Your task to perform on an android device: Open the phone app and click the voicemail tab. Image 0: 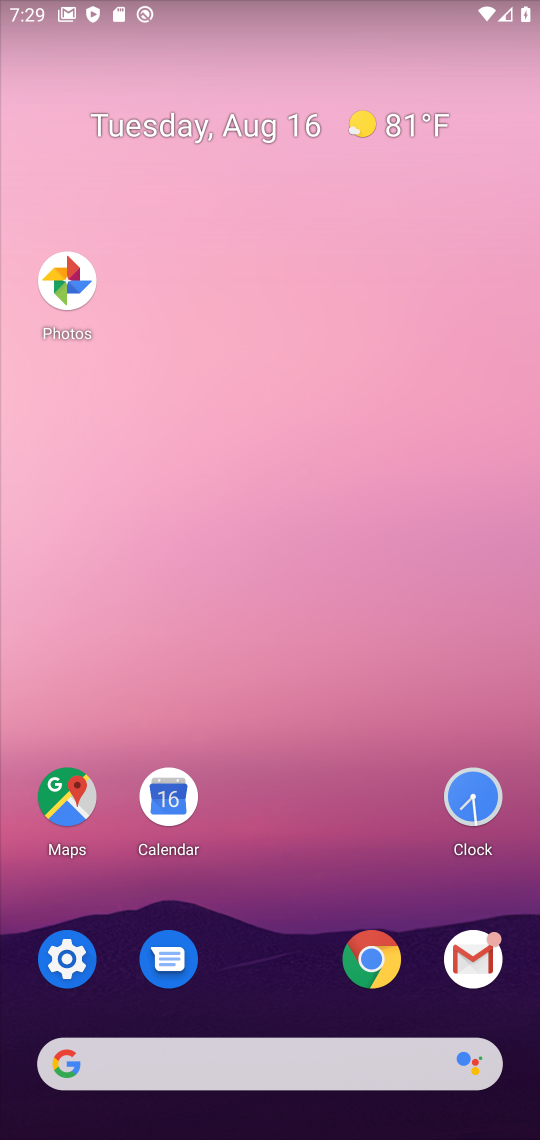
Step 0: press home button
Your task to perform on an android device: Open the phone app and click the voicemail tab. Image 1: 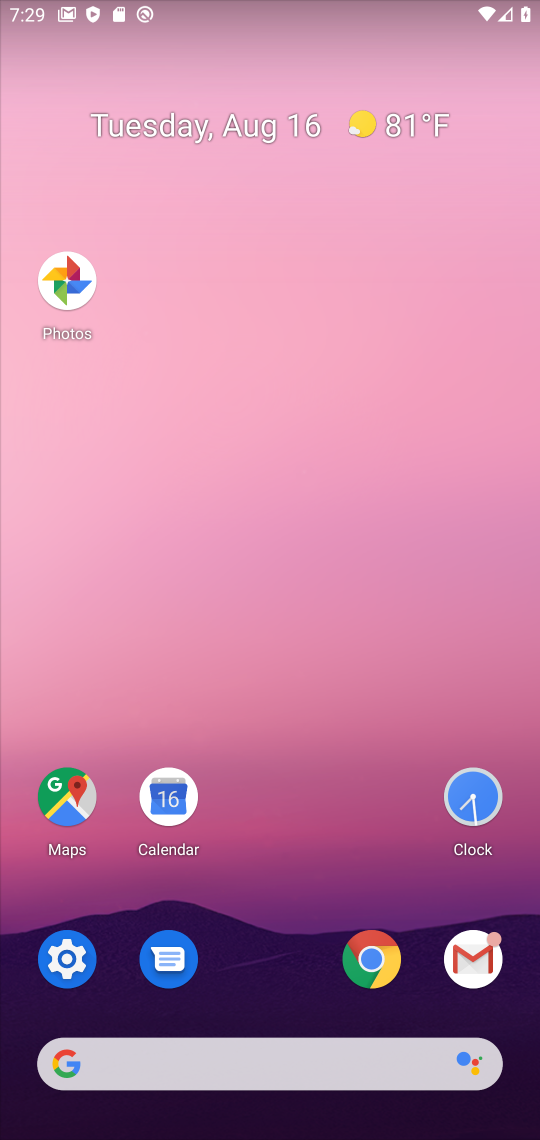
Step 1: click (254, 281)
Your task to perform on an android device: Open the phone app and click the voicemail tab. Image 2: 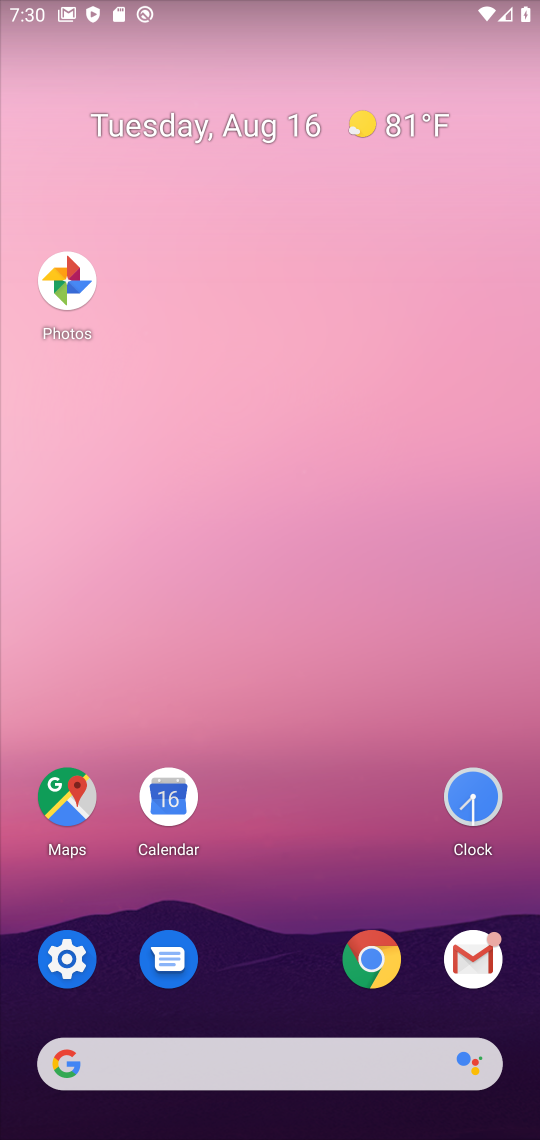
Step 2: drag from (268, 1011) to (236, 160)
Your task to perform on an android device: Open the phone app and click the voicemail tab. Image 3: 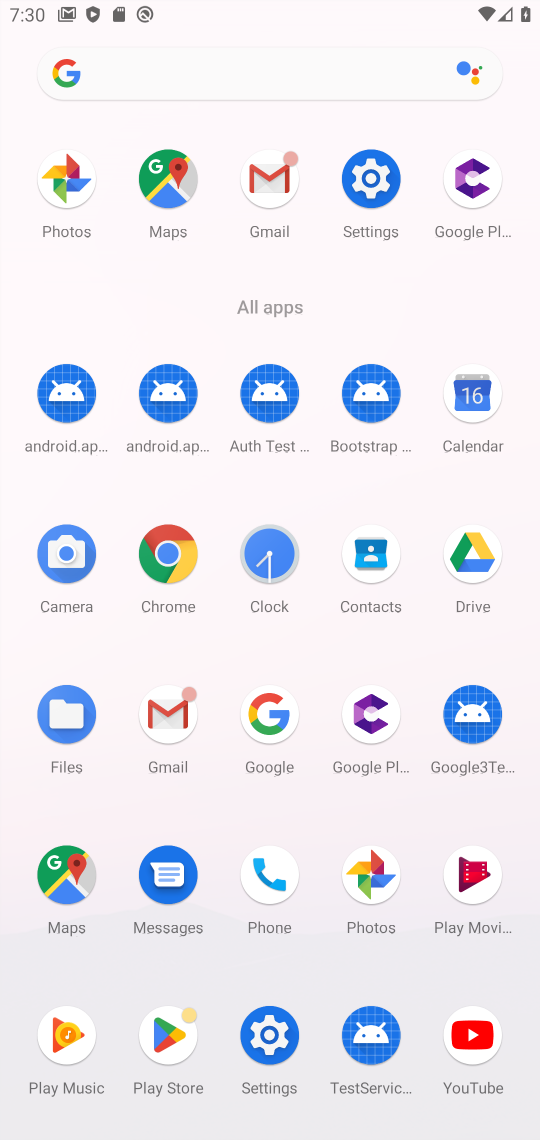
Step 3: click (262, 868)
Your task to perform on an android device: Open the phone app and click the voicemail tab. Image 4: 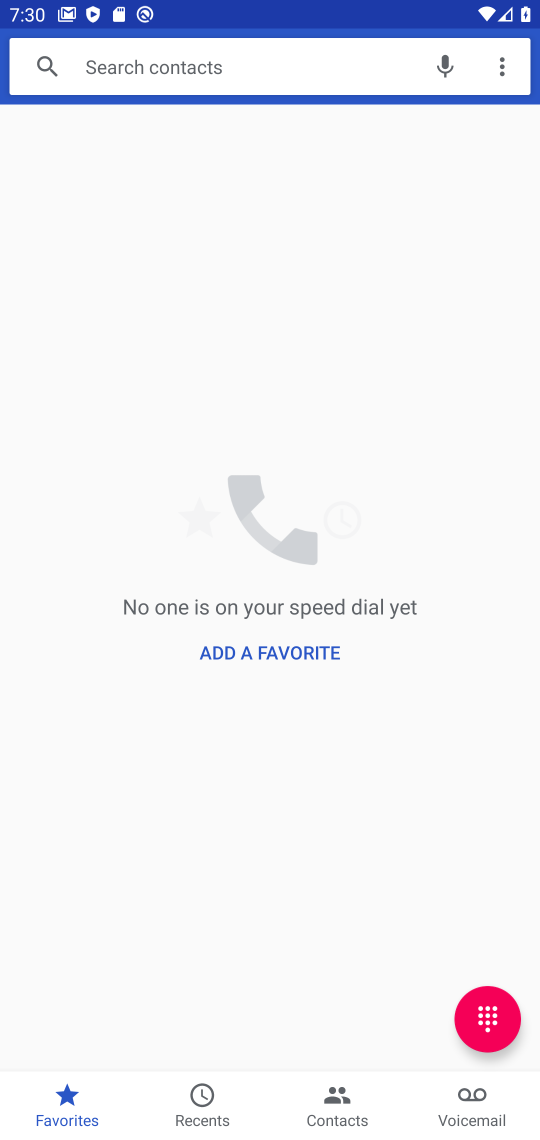
Step 4: click (466, 1094)
Your task to perform on an android device: Open the phone app and click the voicemail tab. Image 5: 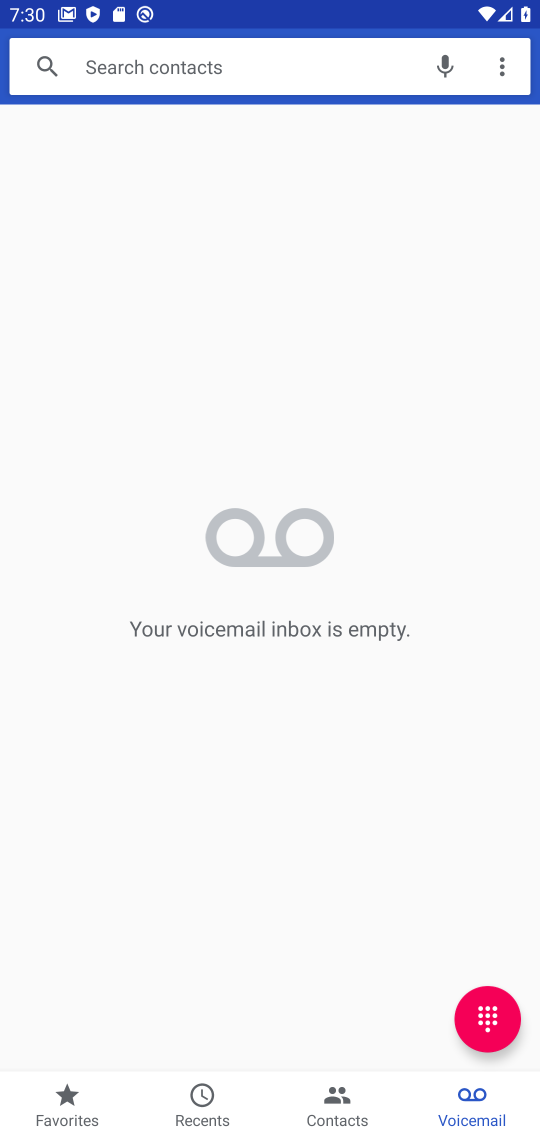
Step 5: task complete